Your task to perform on an android device: turn on wifi Image 0: 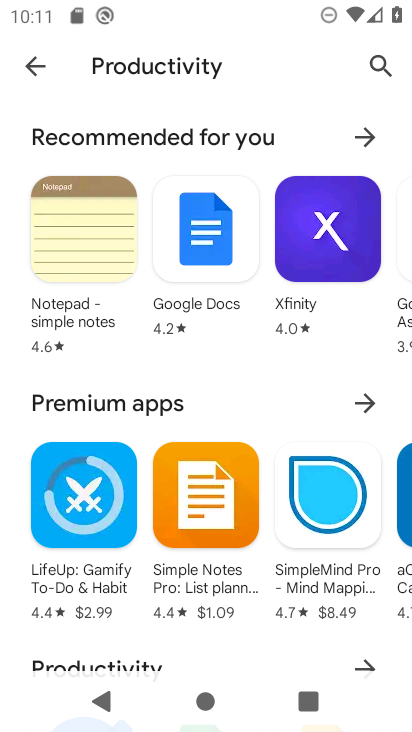
Step 0: press home button
Your task to perform on an android device: turn on wifi Image 1: 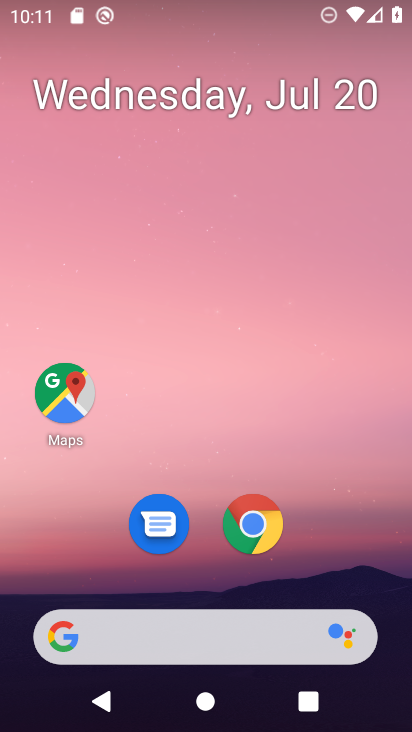
Step 1: drag from (205, 642) to (323, 148)
Your task to perform on an android device: turn on wifi Image 2: 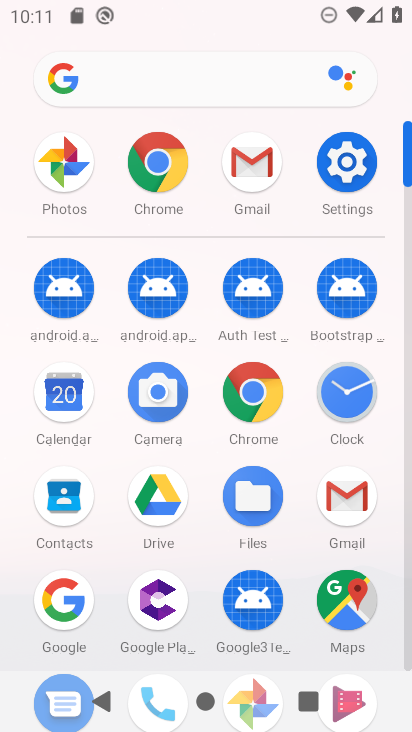
Step 2: click (354, 162)
Your task to perform on an android device: turn on wifi Image 3: 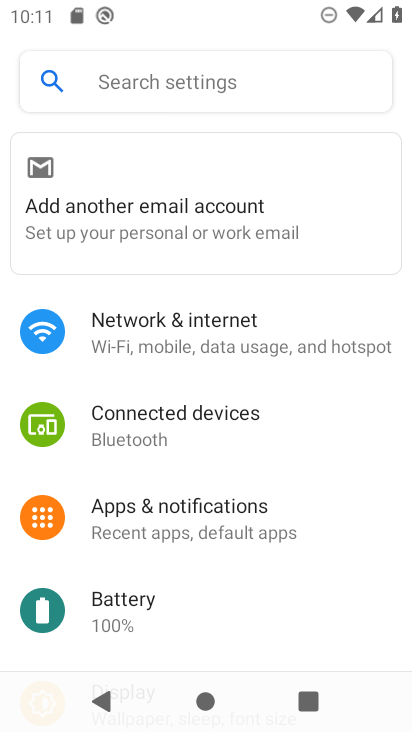
Step 3: click (208, 325)
Your task to perform on an android device: turn on wifi Image 4: 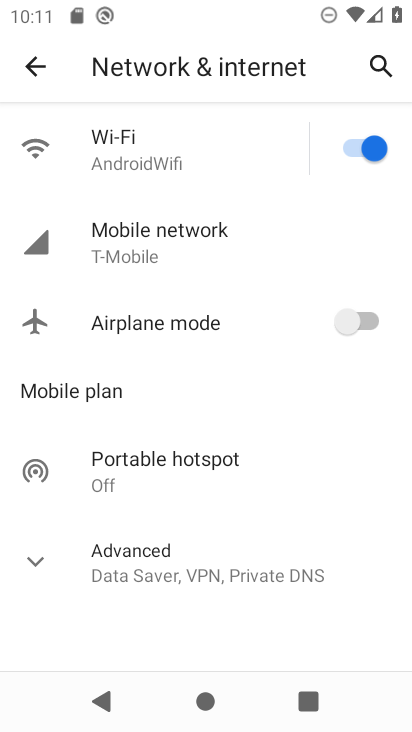
Step 4: task complete